Your task to perform on an android device: Go to settings Image 0: 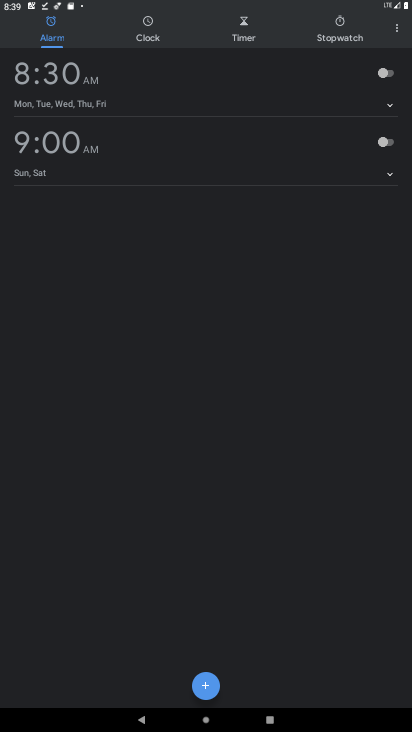
Step 0: press home button
Your task to perform on an android device: Go to settings Image 1: 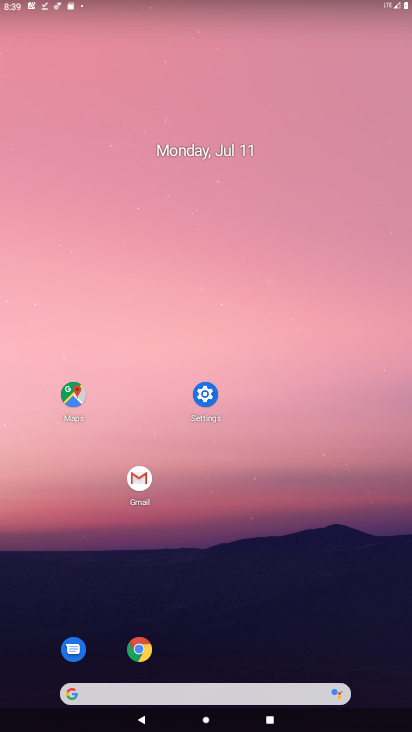
Step 1: click (194, 397)
Your task to perform on an android device: Go to settings Image 2: 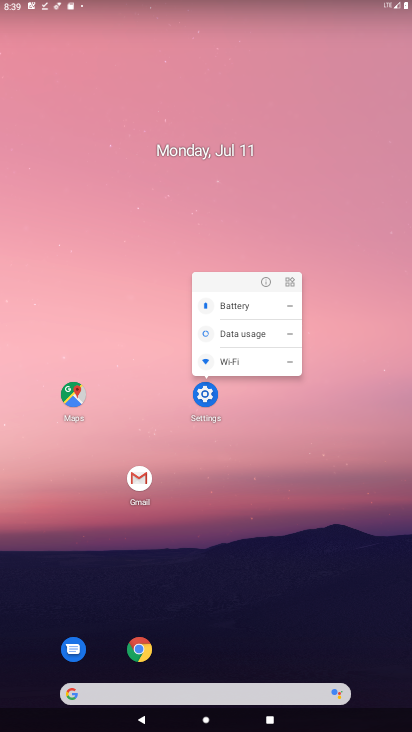
Step 2: click (194, 397)
Your task to perform on an android device: Go to settings Image 3: 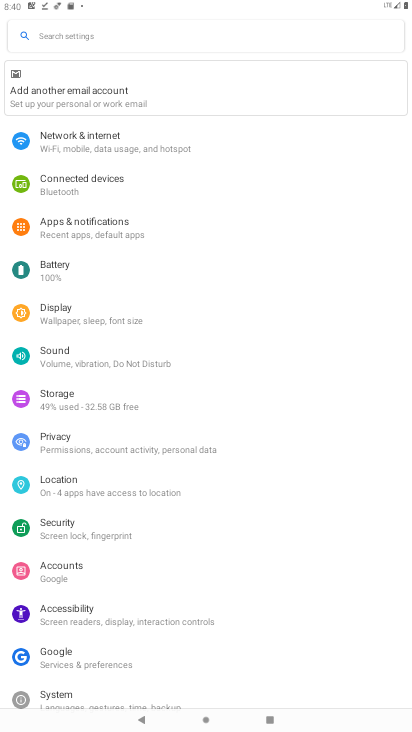
Step 3: task complete